Your task to perform on an android device: empty trash in the gmail app Image 0: 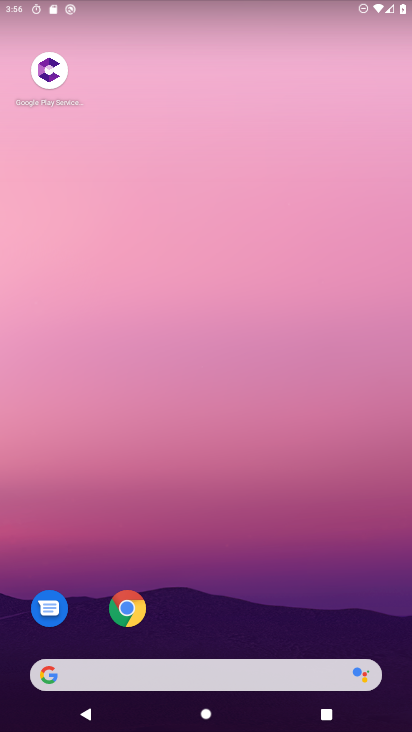
Step 0: drag from (251, 524) to (237, 0)
Your task to perform on an android device: empty trash in the gmail app Image 1: 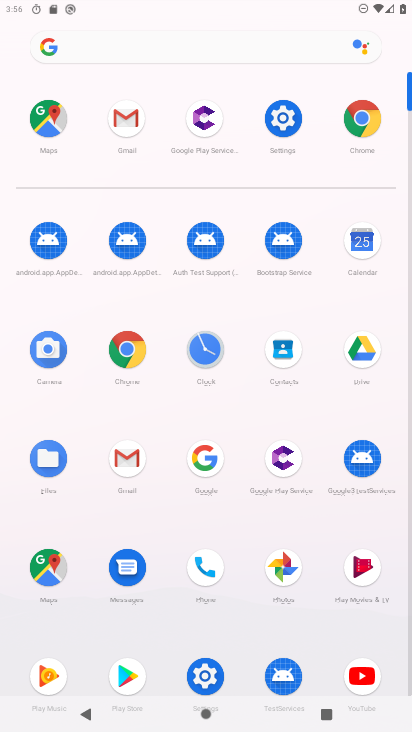
Step 1: click (123, 120)
Your task to perform on an android device: empty trash in the gmail app Image 2: 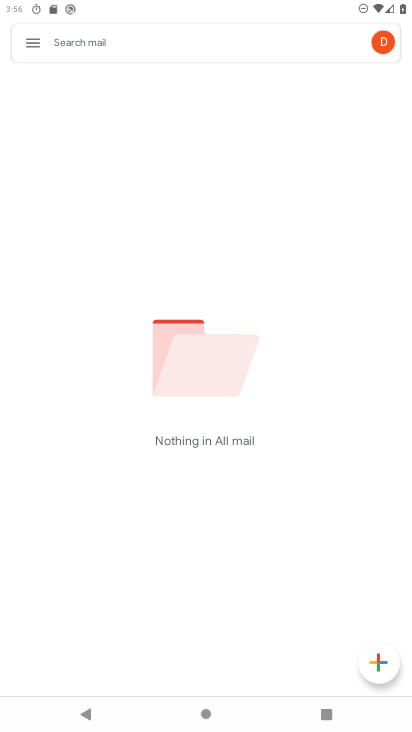
Step 2: click (34, 44)
Your task to perform on an android device: empty trash in the gmail app Image 3: 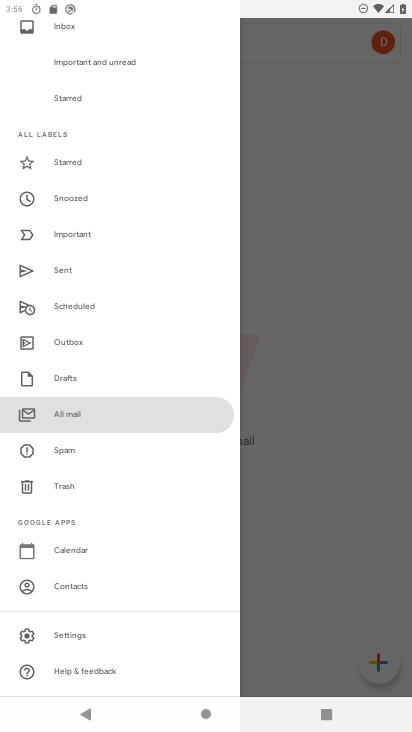
Step 3: click (74, 483)
Your task to perform on an android device: empty trash in the gmail app Image 4: 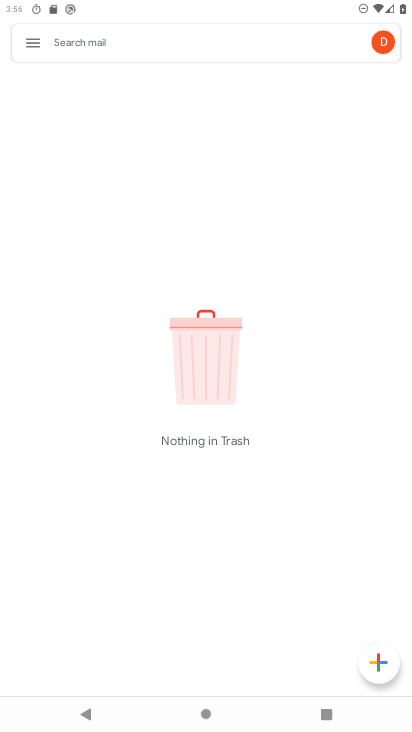
Step 4: task complete